Your task to perform on an android device: all mails in gmail Image 0: 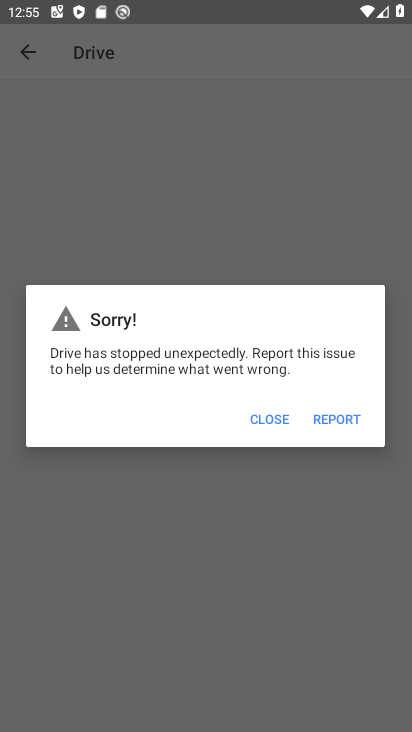
Step 0: press home button
Your task to perform on an android device: all mails in gmail Image 1: 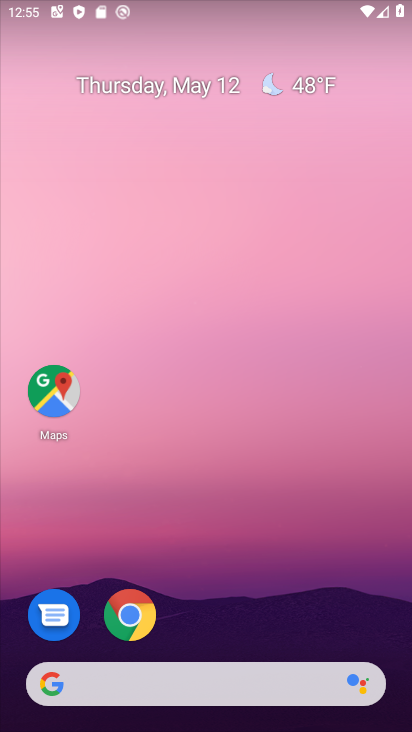
Step 1: drag from (217, 406) to (379, 7)
Your task to perform on an android device: all mails in gmail Image 2: 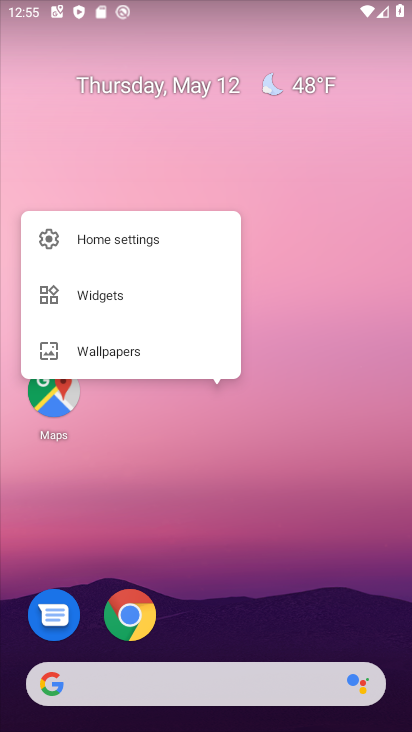
Step 2: drag from (224, 647) to (373, 30)
Your task to perform on an android device: all mails in gmail Image 3: 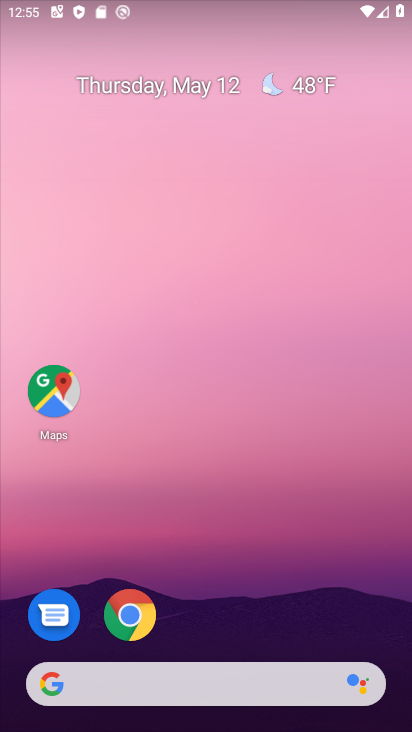
Step 3: drag from (305, 579) to (244, 0)
Your task to perform on an android device: all mails in gmail Image 4: 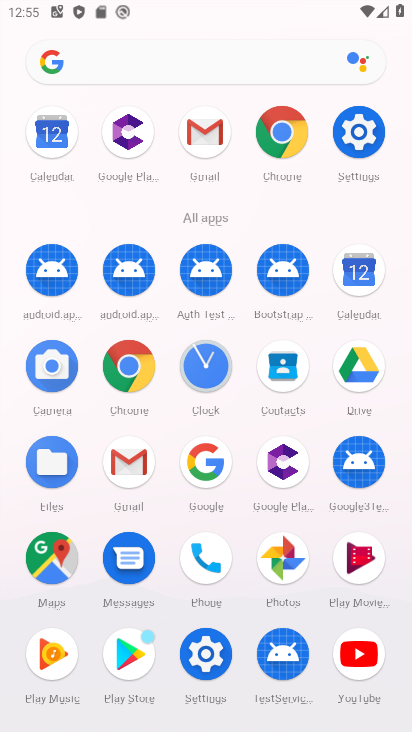
Step 4: click (131, 467)
Your task to perform on an android device: all mails in gmail Image 5: 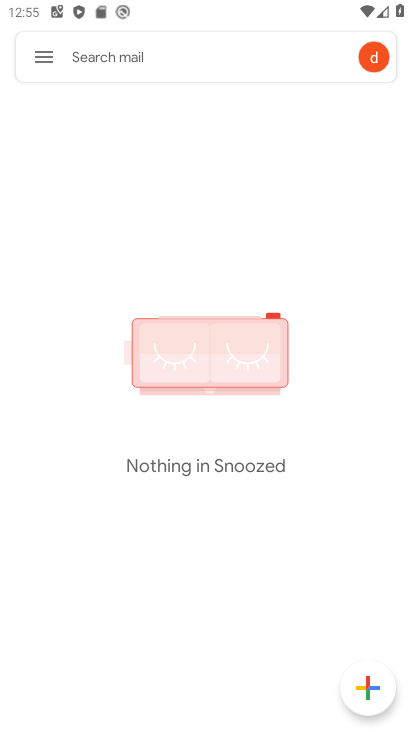
Step 5: click (35, 65)
Your task to perform on an android device: all mails in gmail Image 6: 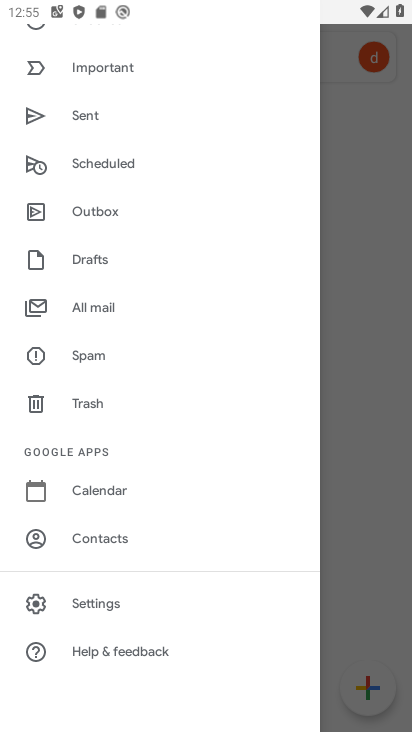
Step 6: click (38, 54)
Your task to perform on an android device: all mails in gmail Image 7: 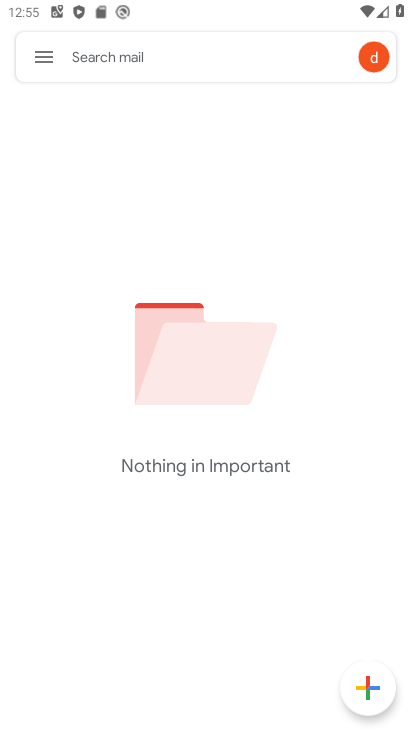
Step 7: click (39, 53)
Your task to perform on an android device: all mails in gmail Image 8: 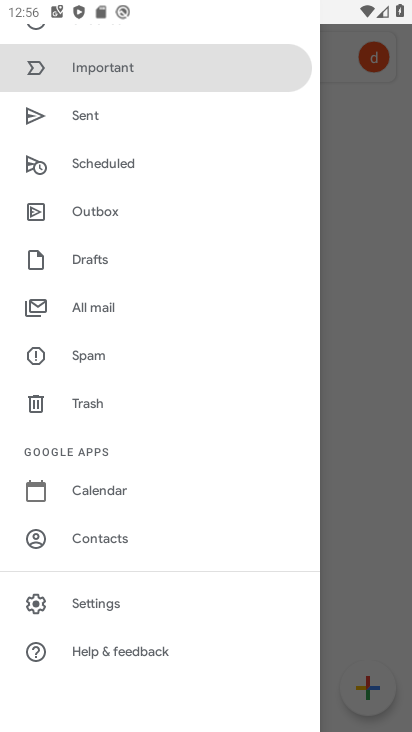
Step 8: click (96, 306)
Your task to perform on an android device: all mails in gmail Image 9: 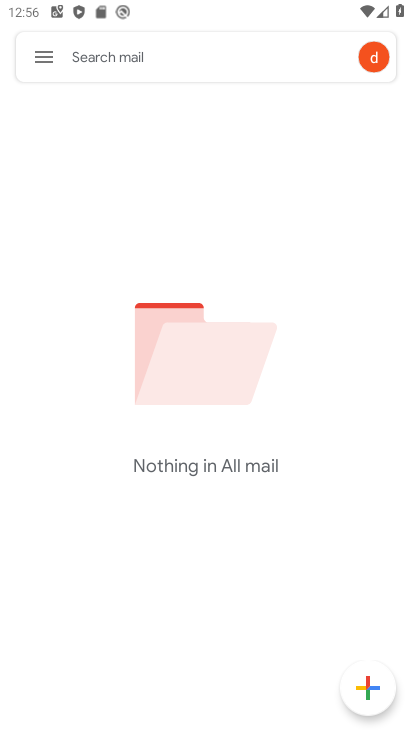
Step 9: task complete